Your task to perform on an android device: toggle location history Image 0: 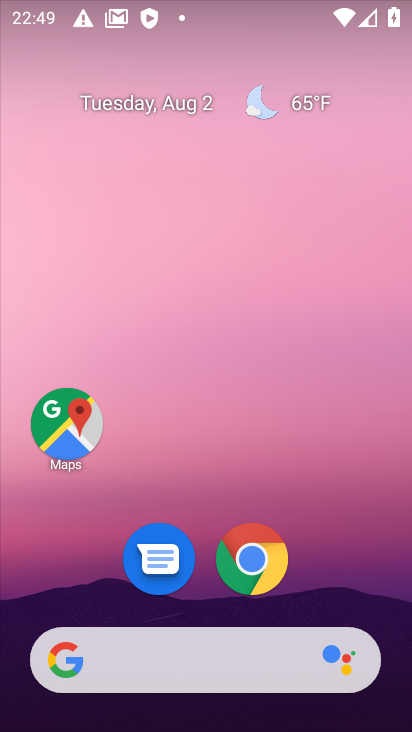
Step 0: drag from (170, 686) to (137, 316)
Your task to perform on an android device: toggle location history Image 1: 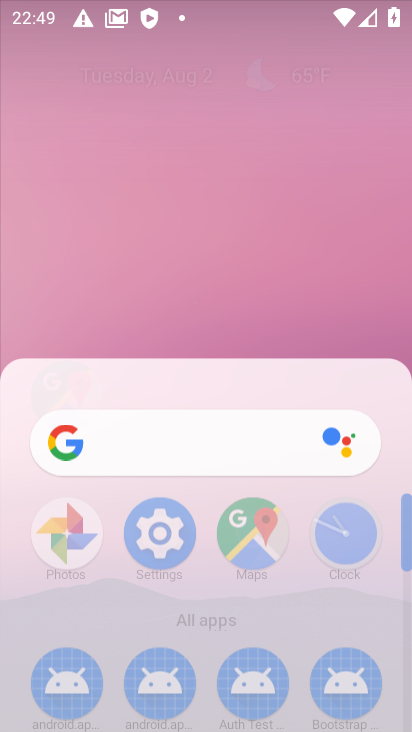
Step 1: drag from (239, 551) to (212, 382)
Your task to perform on an android device: toggle location history Image 2: 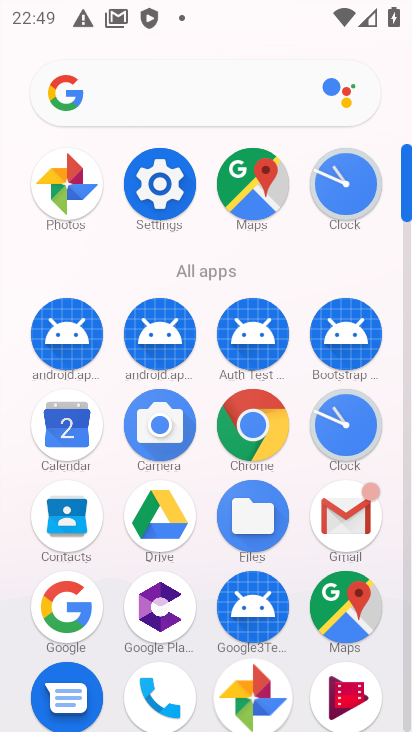
Step 2: click (157, 195)
Your task to perform on an android device: toggle location history Image 3: 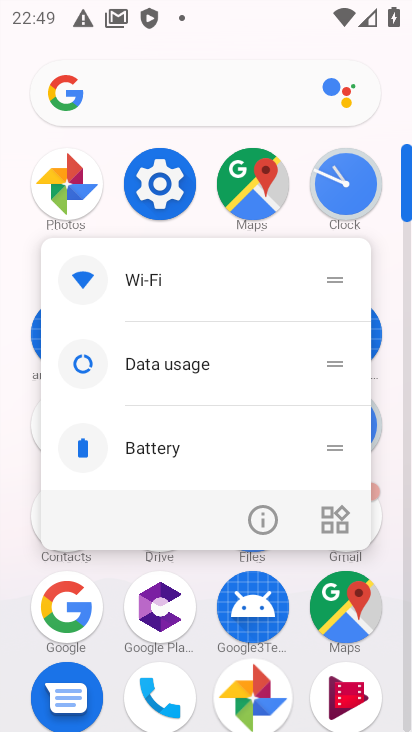
Step 3: click (153, 185)
Your task to perform on an android device: toggle location history Image 4: 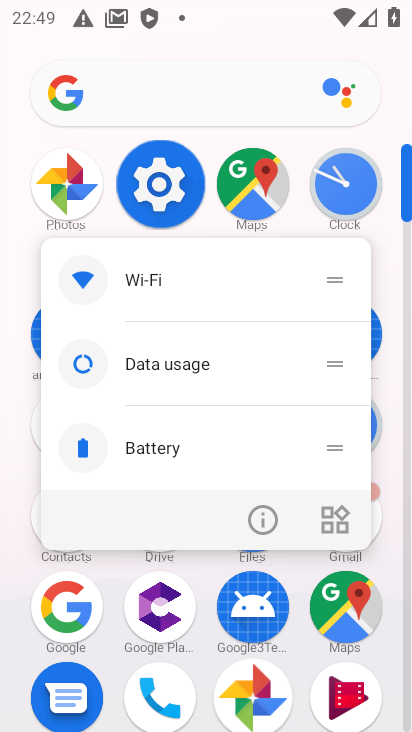
Step 4: click (160, 186)
Your task to perform on an android device: toggle location history Image 5: 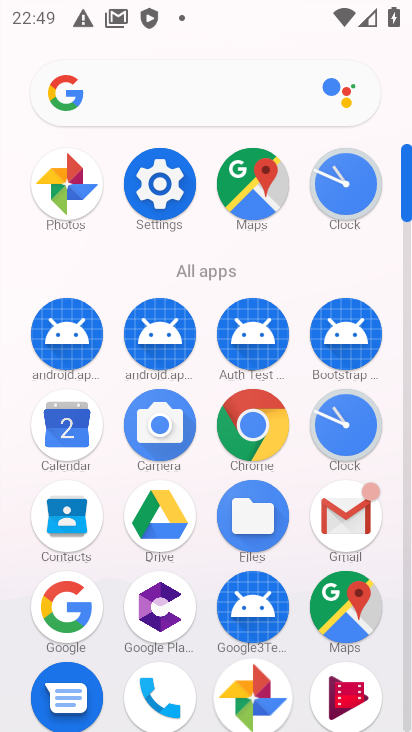
Step 5: click (162, 188)
Your task to perform on an android device: toggle location history Image 6: 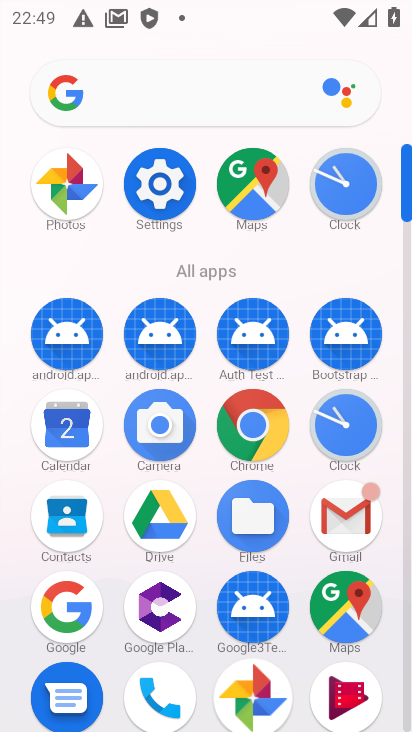
Step 6: click (162, 188)
Your task to perform on an android device: toggle location history Image 7: 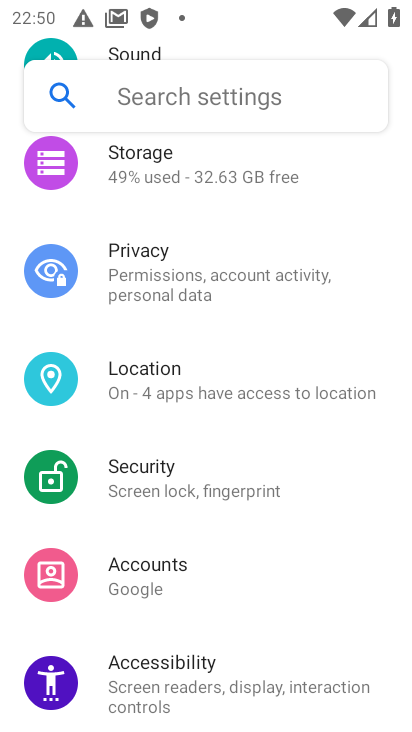
Step 7: click (144, 380)
Your task to perform on an android device: toggle location history Image 8: 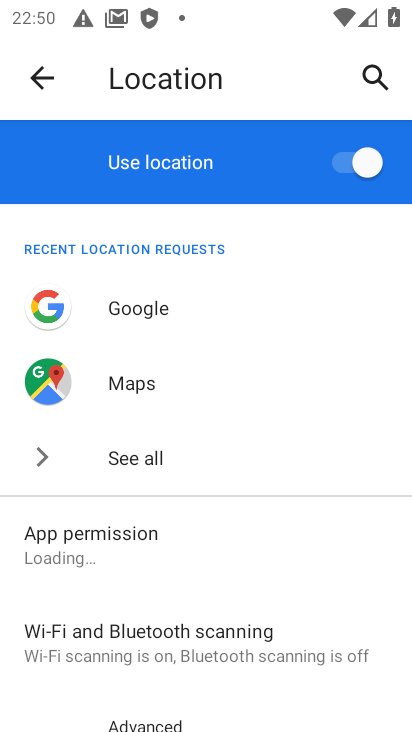
Step 8: drag from (179, 603) to (155, 338)
Your task to perform on an android device: toggle location history Image 9: 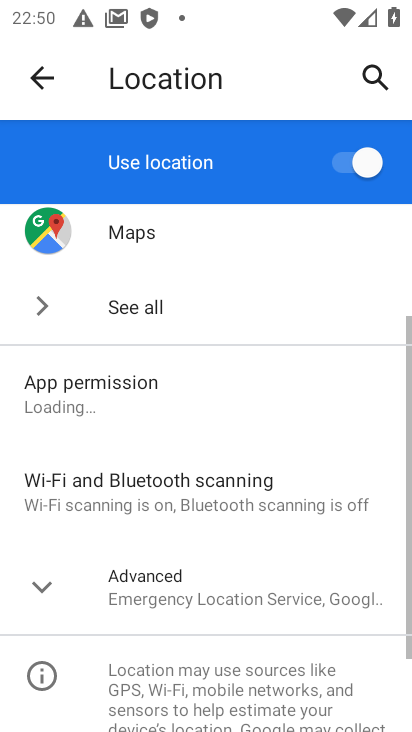
Step 9: click (142, 458)
Your task to perform on an android device: toggle location history Image 10: 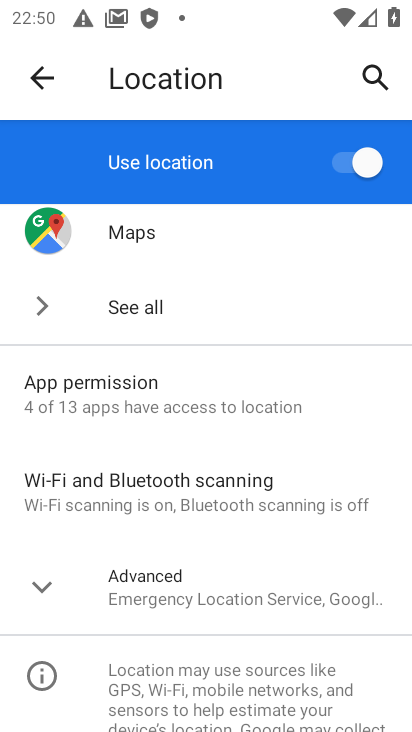
Step 10: click (148, 597)
Your task to perform on an android device: toggle location history Image 11: 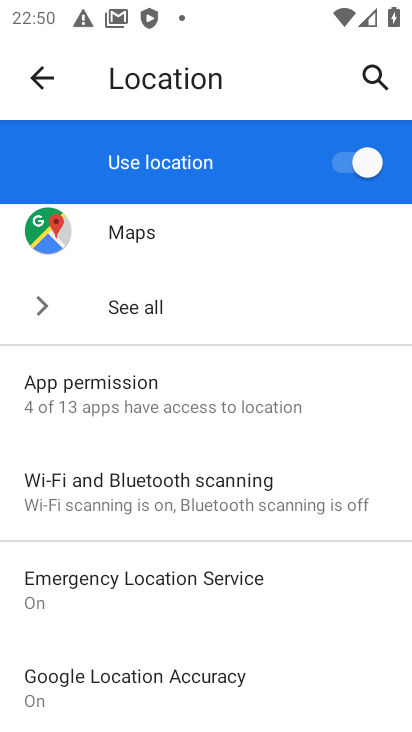
Step 11: drag from (214, 607) to (196, 408)
Your task to perform on an android device: toggle location history Image 12: 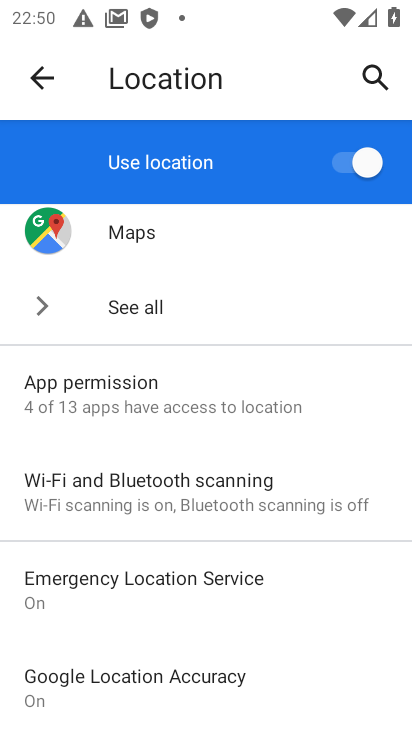
Step 12: drag from (218, 563) to (210, 460)
Your task to perform on an android device: toggle location history Image 13: 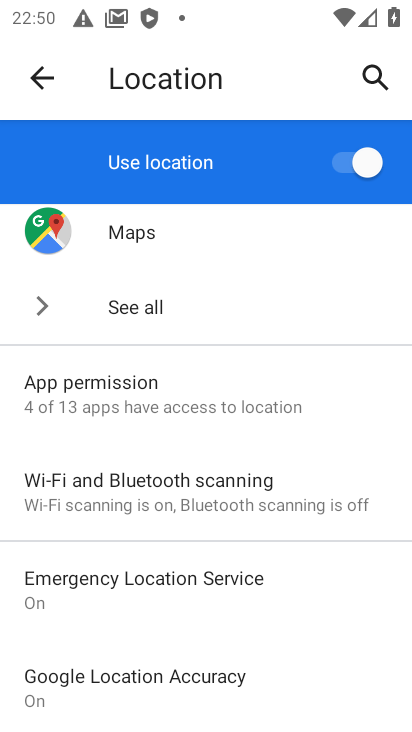
Step 13: drag from (180, 538) to (151, 195)
Your task to perform on an android device: toggle location history Image 14: 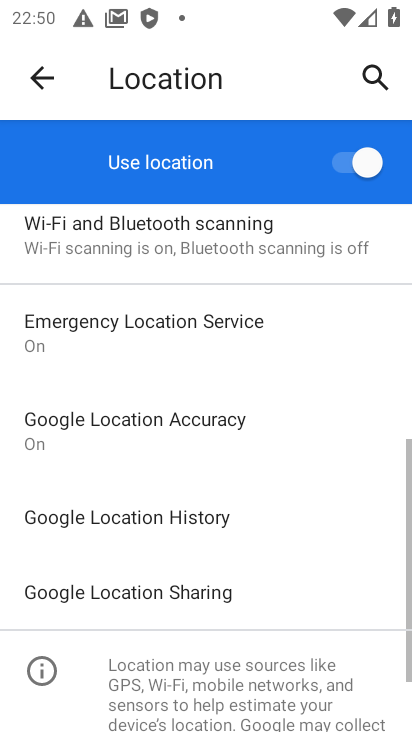
Step 14: drag from (151, 473) to (149, 174)
Your task to perform on an android device: toggle location history Image 15: 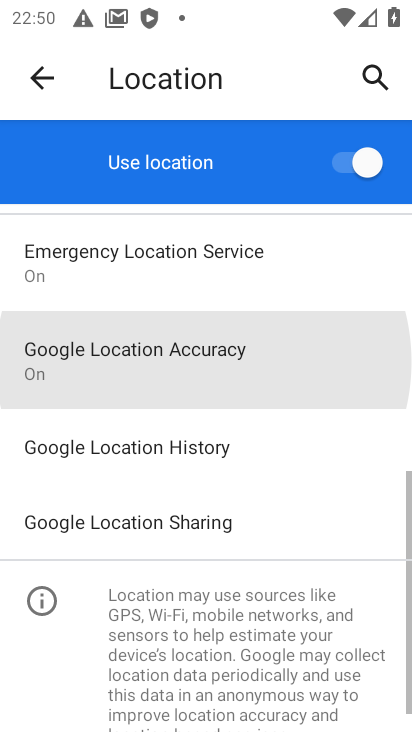
Step 15: drag from (186, 448) to (179, 238)
Your task to perform on an android device: toggle location history Image 16: 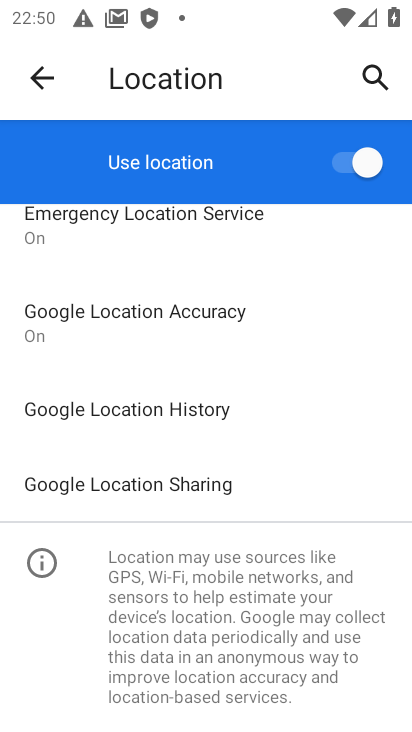
Step 16: click (56, 404)
Your task to perform on an android device: toggle location history Image 17: 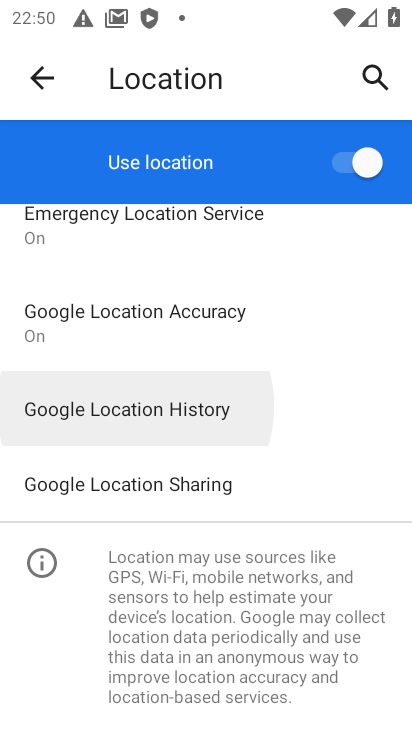
Step 17: click (56, 404)
Your task to perform on an android device: toggle location history Image 18: 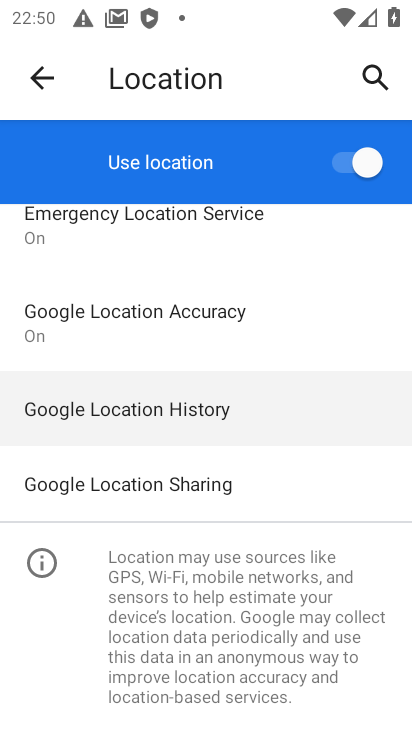
Step 18: click (56, 404)
Your task to perform on an android device: toggle location history Image 19: 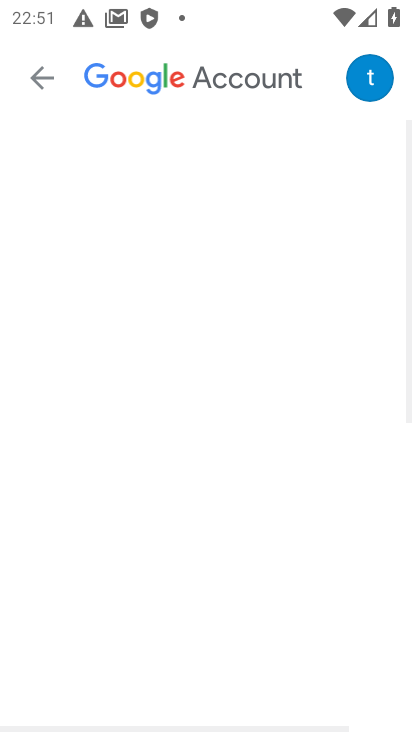
Step 19: click (44, 75)
Your task to perform on an android device: toggle location history Image 20: 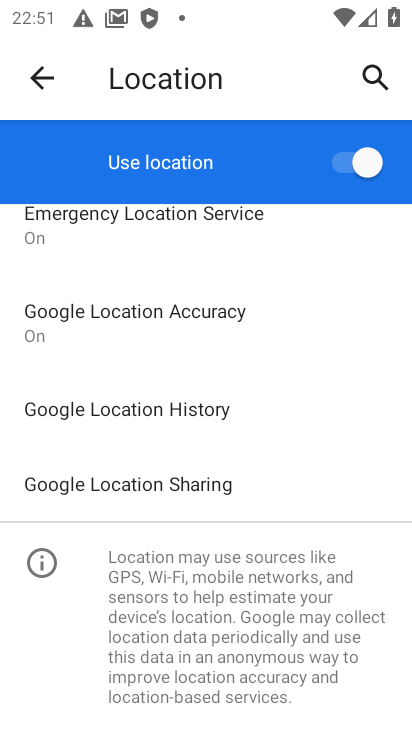
Step 20: click (70, 413)
Your task to perform on an android device: toggle location history Image 21: 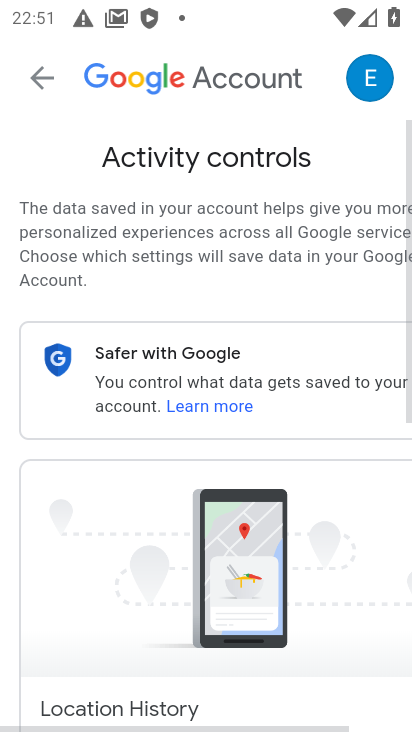
Step 21: drag from (203, 530) to (115, 242)
Your task to perform on an android device: toggle location history Image 22: 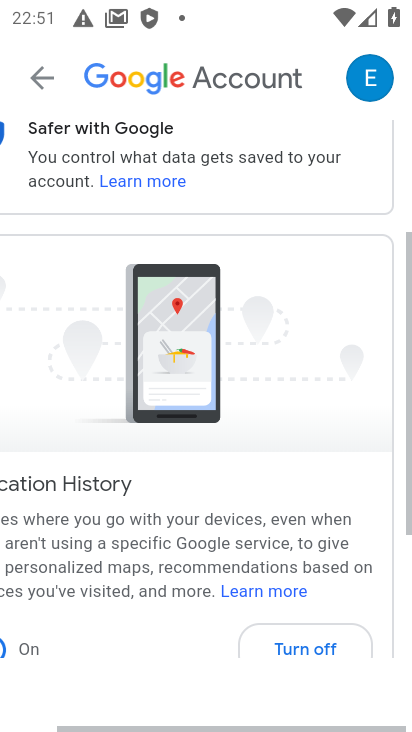
Step 22: drag from (126, 549) to (120, 371)
Your task to perform on an android device: toggle location history Image 23: 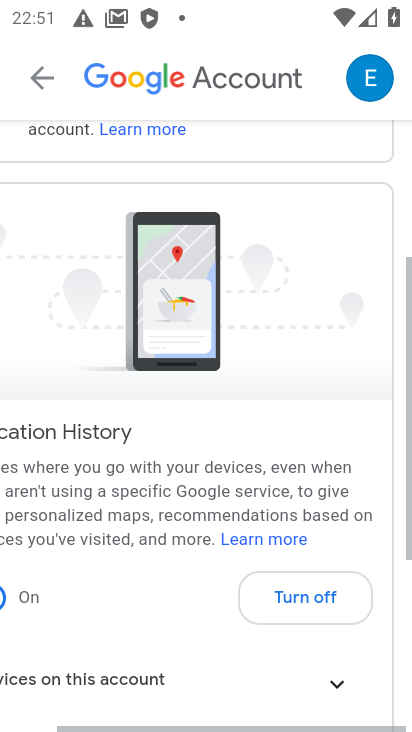
Step 23: drag from (142, 497) to (145, 393)
Your task to perform on an android device: toggle location history Image 24: 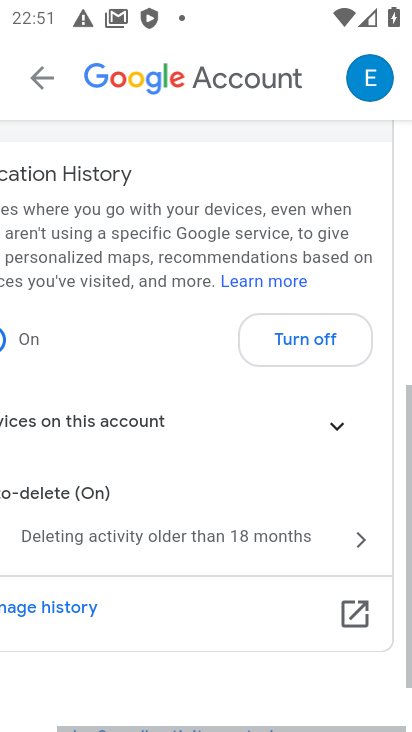
Step 24: drag from (172, 413) to (172, 330)
Your task to perform on an android device: toggle location history Image 25: 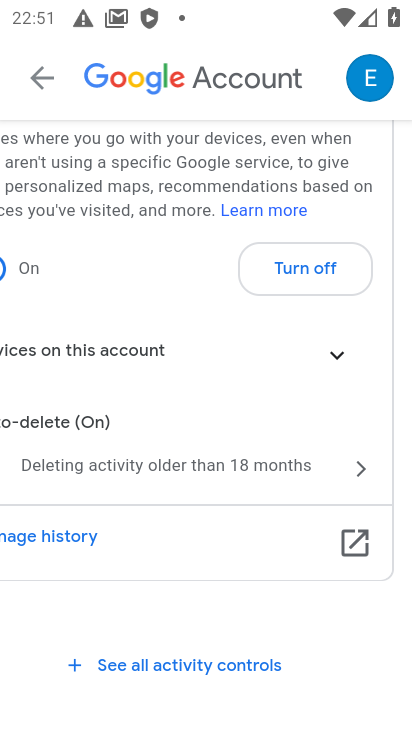
Step 25: click (285, 272)
Your task to perform on an android device: toggle location history Image 26: 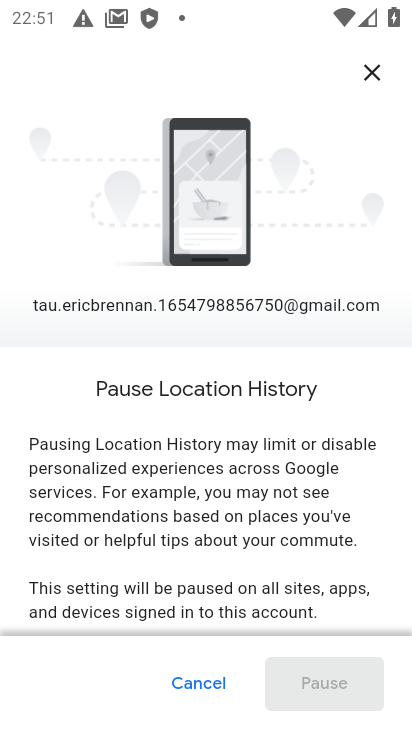
Step 26: task complete